Your task to perform on an android device: change notifications settings Image 0: 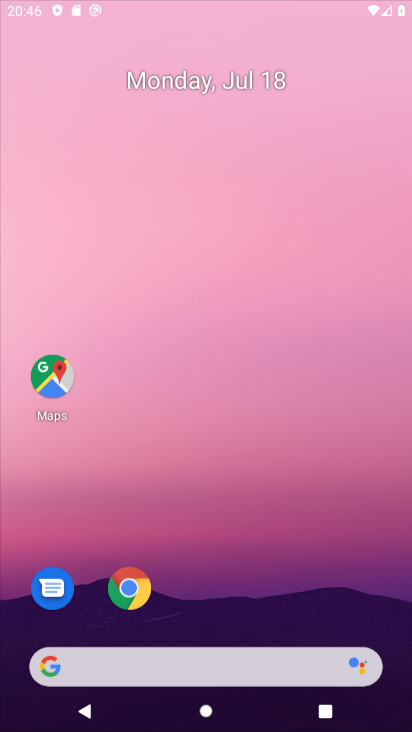
Step 0: press home button
Your task to perform on an android device: change notifications settings Image 1: 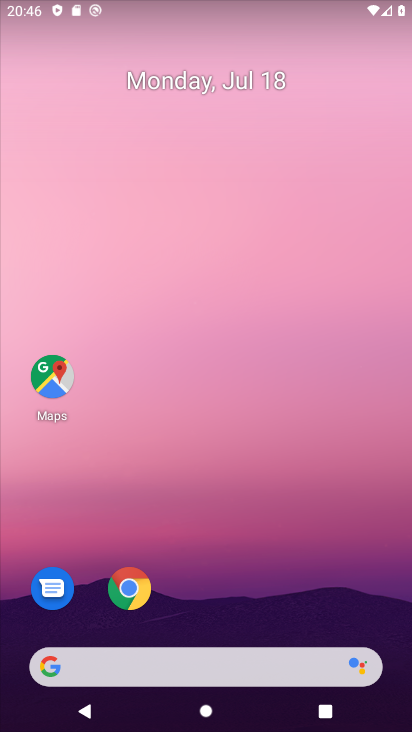
Step 1: drag from (184, 672) to (311, 19)
Your task to perform on an android device: change notifications settings Image 2: 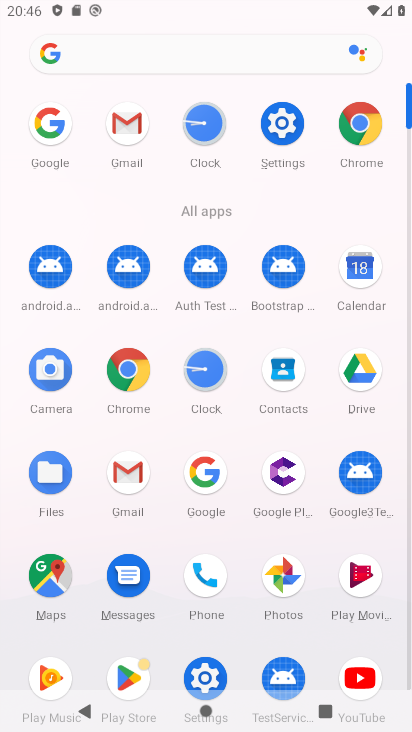
Step 2: click (278, 124)
Your task to perform on an android device: change notifications settings Image 3: 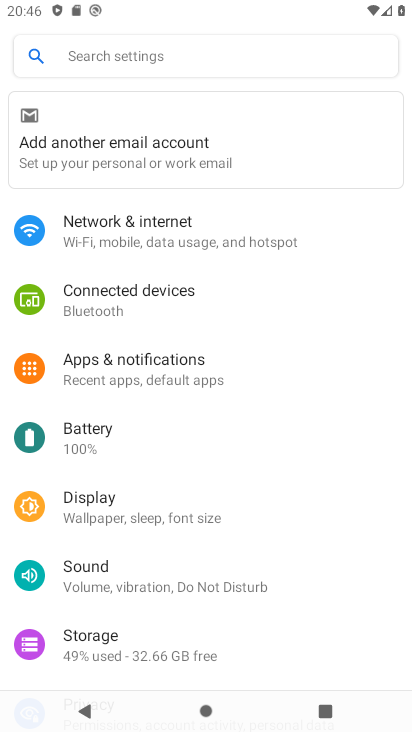
Step 3: click (150, 368)
Your task to perform on an android device: change notifications settings Image 4: 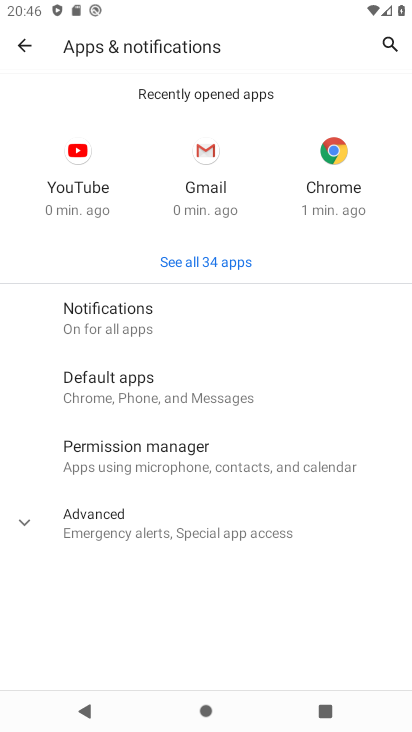
Step 4: click (133, 322)
Your task to perform on an android device: change notifications settings Image 5: 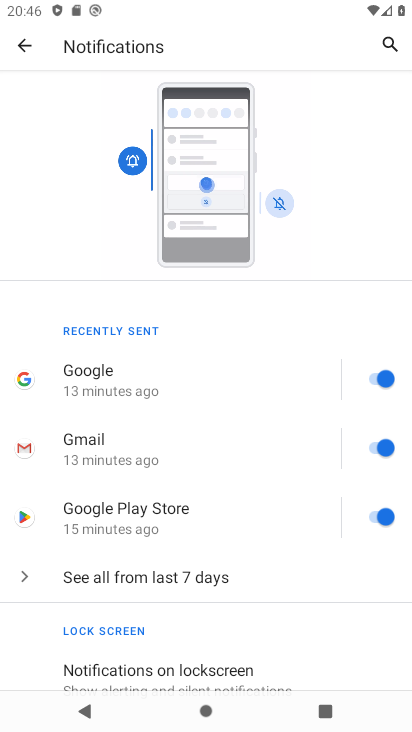
Step 5: drag from (259, 559) to (276, 281)
Your task to perform on an android device: change notifications settings Image 6: 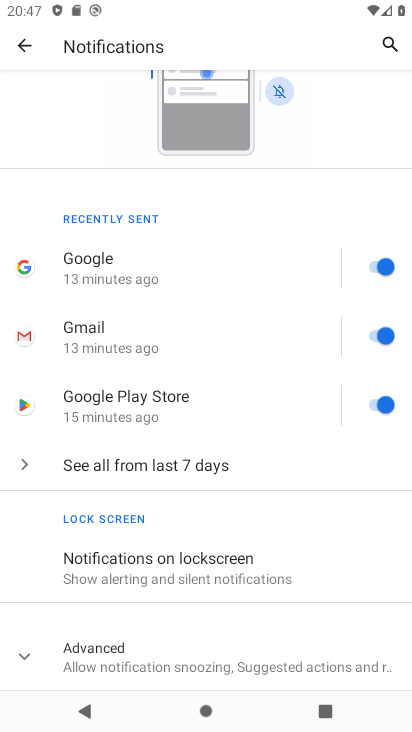
Step 6: click (374, 334)
Your task to perform on an android device: change notifications settings Image 7: 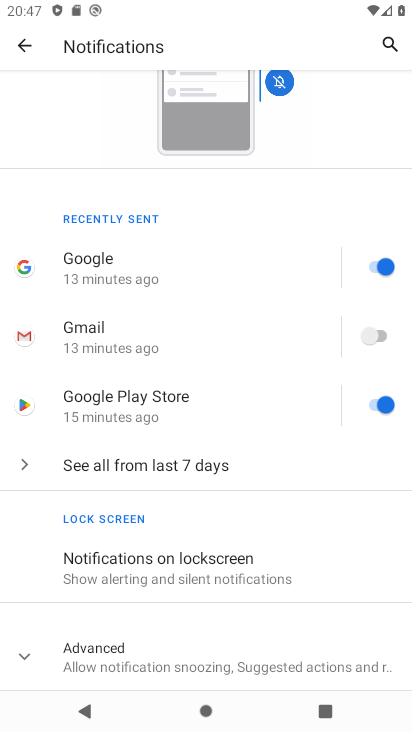
Step 7: task complete